Your task to perform on an android device: Go to Amazon Image 0: 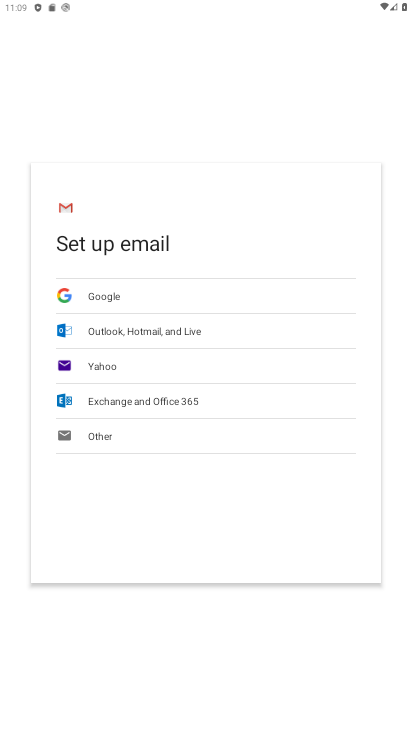
Step 0: press home button
Your task to perform on an android device: Go to Amazon Image 1: 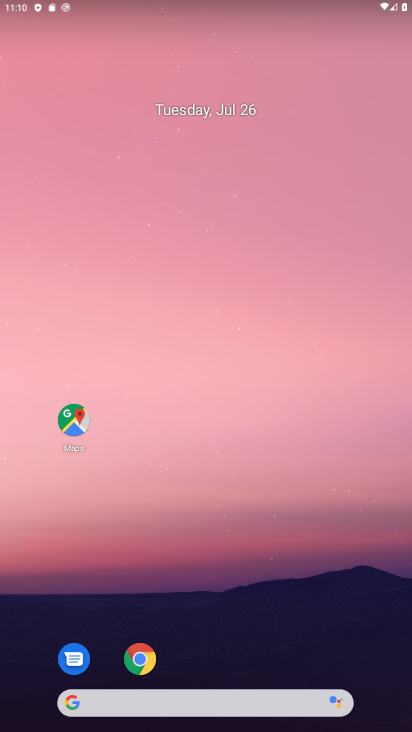
Step 1: drag from (72, 728) to (262, 277)
Your task to perform on an android device: Go to Amazon Image 2: 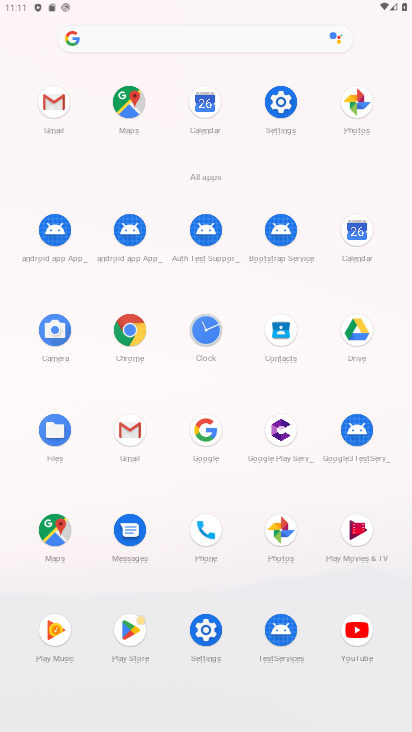
Step 2: click (128, 341)
Your task to perform on an android device: Go to Amazon Image 3: 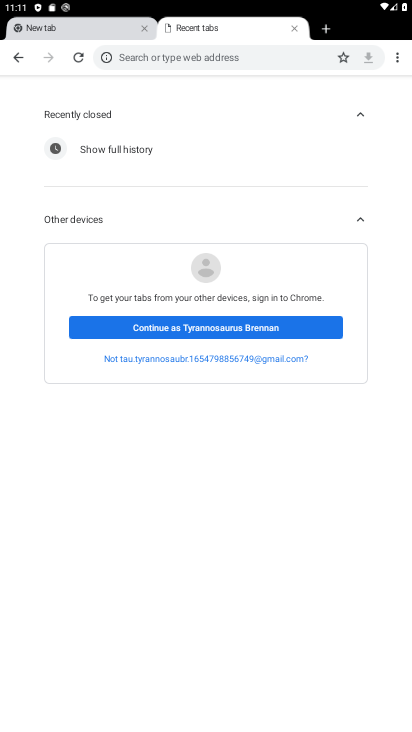
Step 3: click (48, 25)
Your task to perform on an android device: Go to Amazon Image 4: 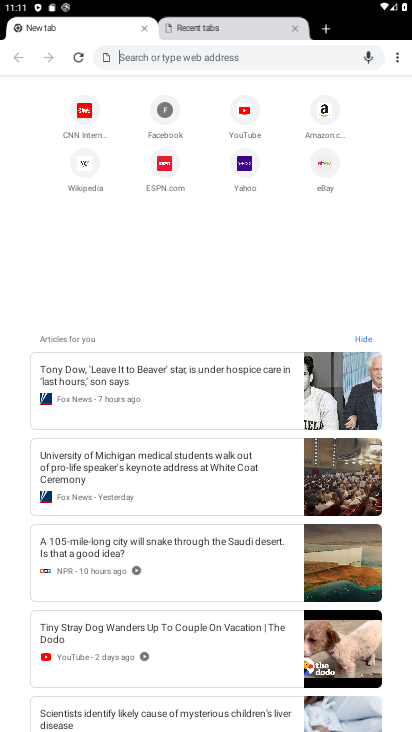
Step 4: click (326, 106)
Your task to perform on an android device: Go to Amazon Image 5: 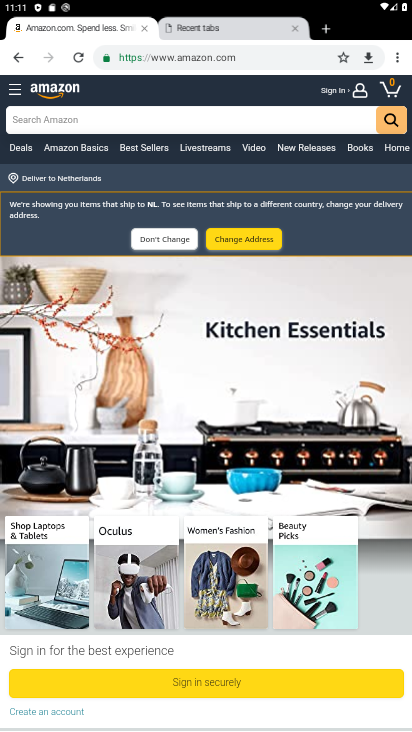
Step 5: task complete